Your task to perform on an android device: Turn on the flashlight Image 0: 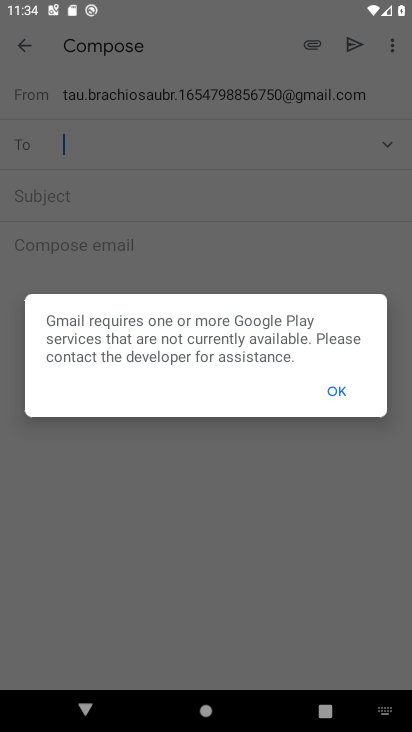
Step 0: press back button
Your task to perform on an android device: Turn on the flashlight Image 1: 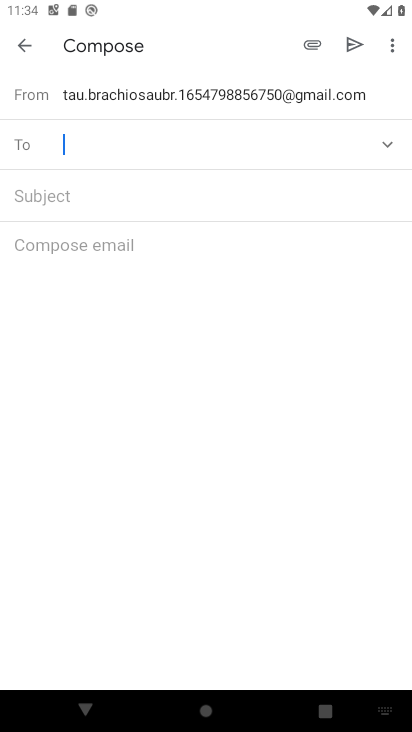
Step 1: click (20, 57)
Your task to perform on an android device: Turn on the flashlight Image 2: 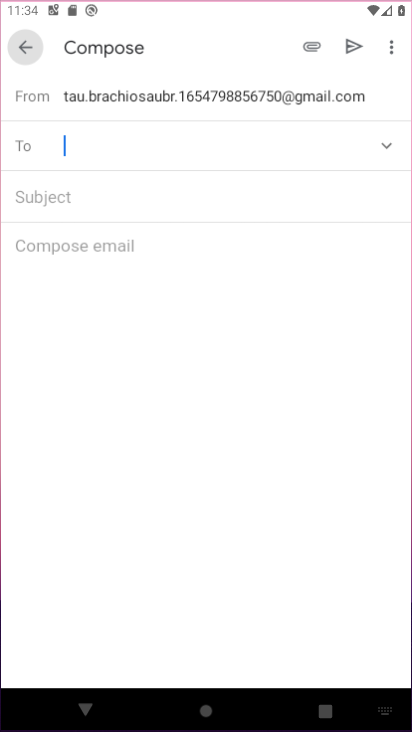
Step 2: click (28, 54)
Your task to perform on an android device: Turn on the flashlight Image 3: 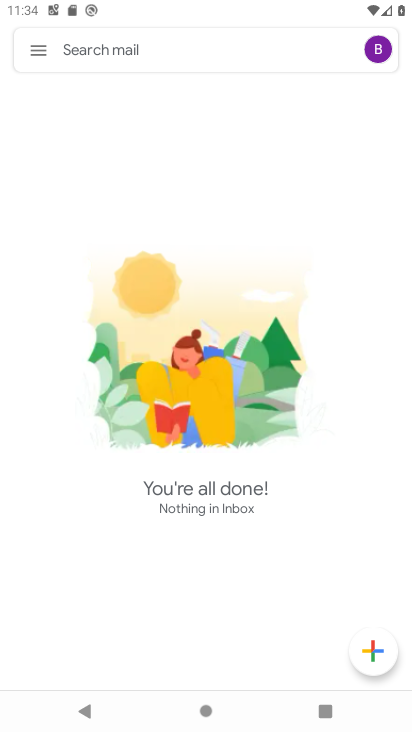
Step 3: task complete